Your task to perform on an android device: turn pop-ups on in chrome Image 0: 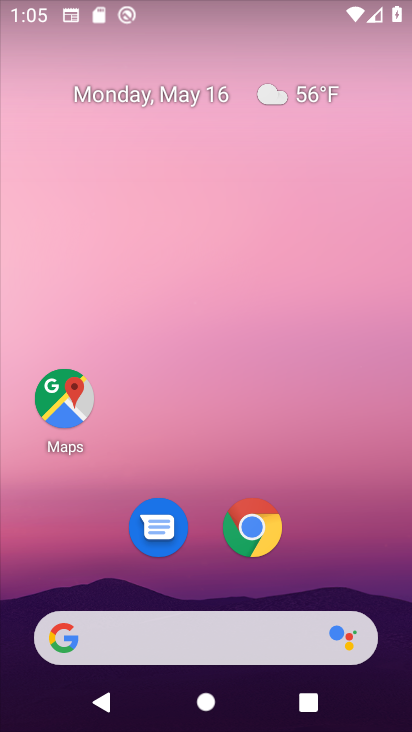
Step 0: click (259, 536)
Your task to perform on an android device: turn pop-ups on in chrome Image 1: 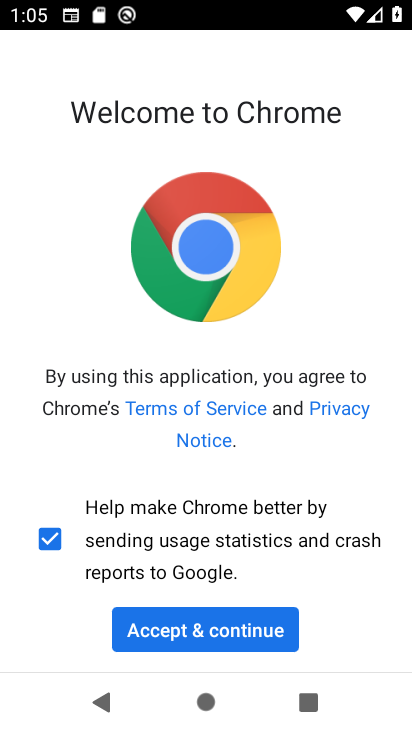
Step 1: click (235, 631)
Your task to perform on an android device: turn pop-ups on in chrome Image 2: 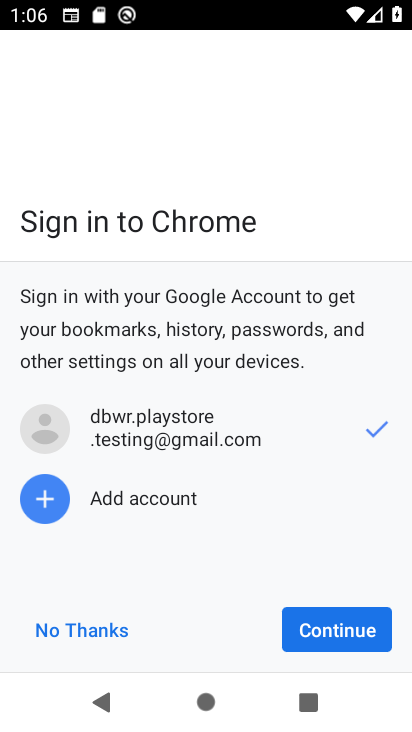
Step 2: click (317, 610)
Your task to perform on an android device: turn pop-ups on in chrome Image 3: 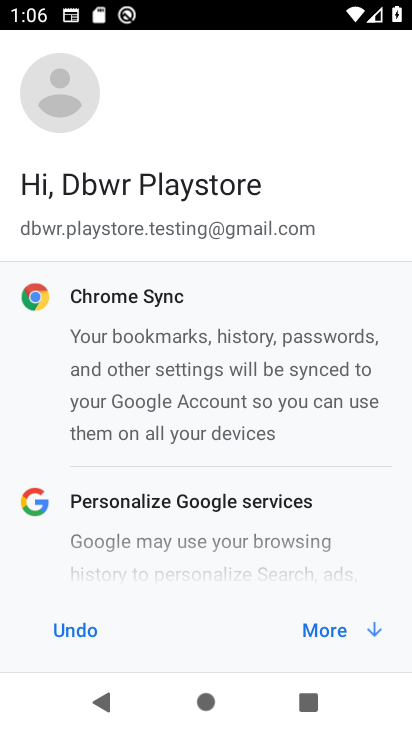
Step 3: click (366, 638)
Your task to perform on an android device: turn pop-ups on in chrome Image 4: 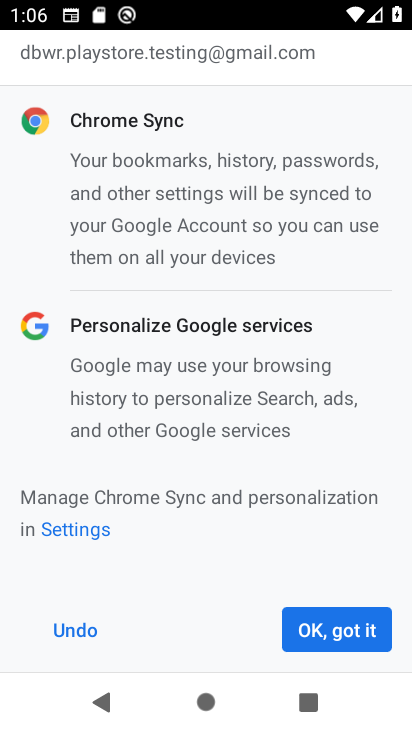
Step 4: click (366, 638)
Your task to perform on an android device: turn pop-ups on in chrome Image 5: 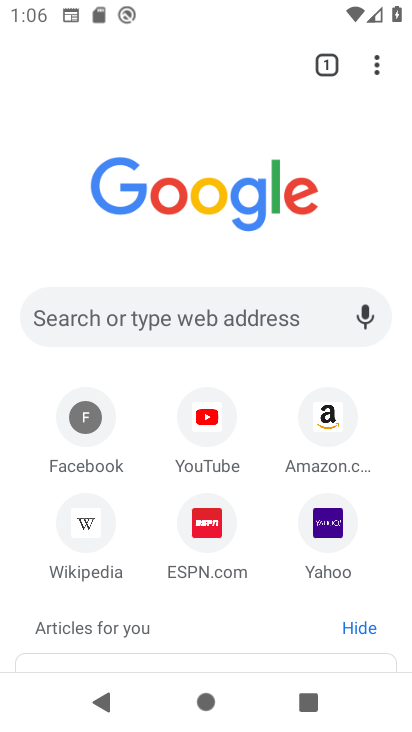
Step 5: drag from (378, 64) to (175, 555)
Your task to perform on an android device: turn pop-ups on in chrome Image 6: 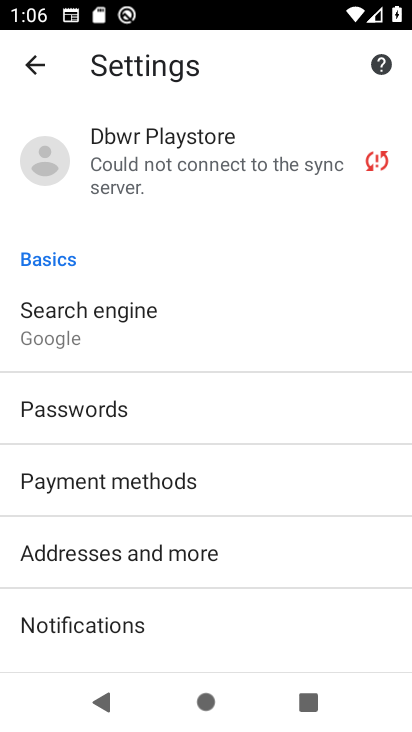
Step 6: drag from (134, 612) to (137, 49)
Your task to perform on an android device: turn pop-ups on in chrome Image 7: 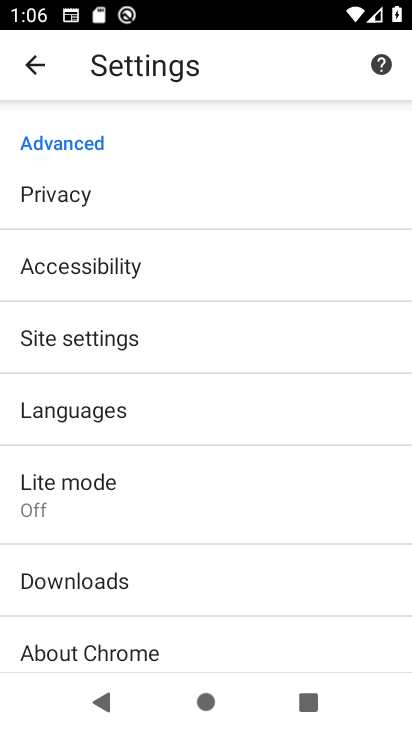
Step 7: click (93, 338)
Your task to perform on an android device: turn pop-ups on in chrome Image 8: 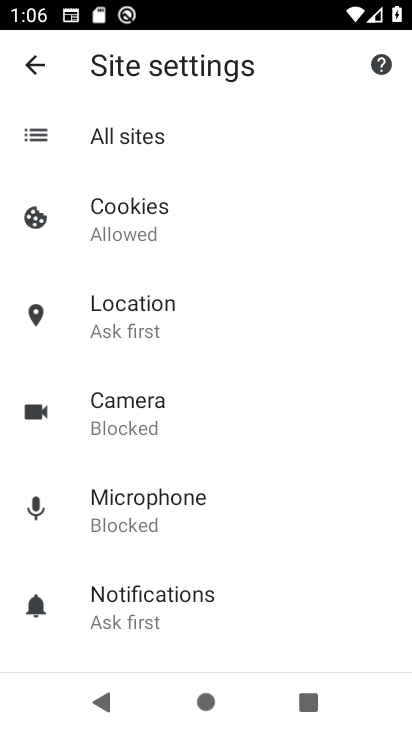
Step 8: drag from (176, 576) to (153, 220)
Your task to perform on an android device: turn pop-ups on in chrome Image 9: 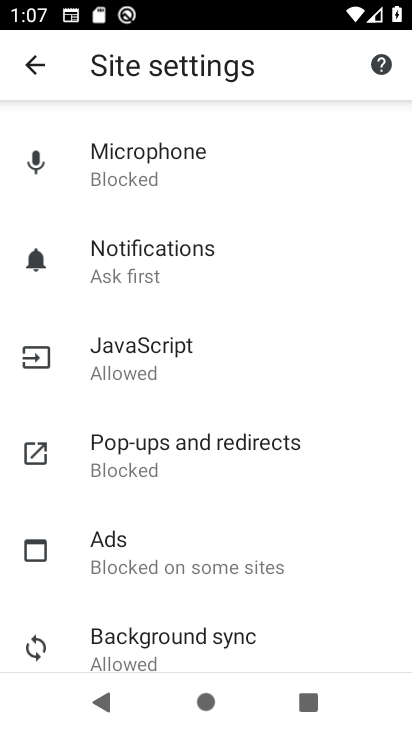
Step 9: click (149, 465)
Your task to perform on an android device: turn pop-ups on in chrome Image 10: 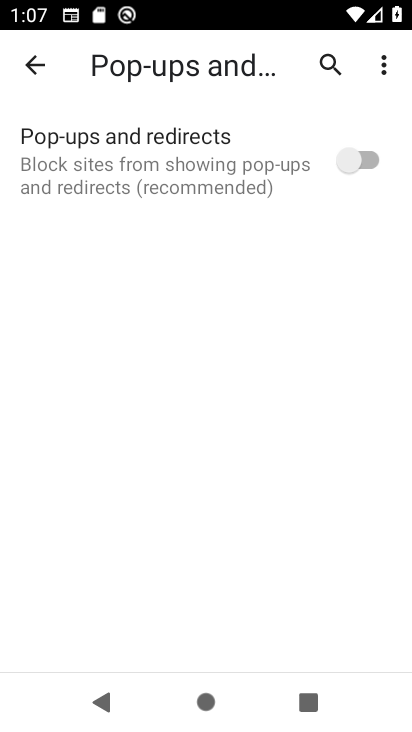
Step 10: click (362, 169)
Your task to perform on an android device: turn pop-ups on in chrome Image 11: 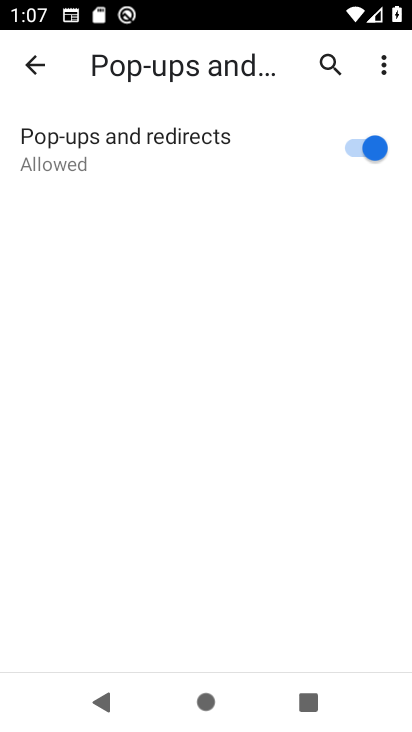
Step 11: task complete